Your task to perform on an android device: change timer sound Image 0: 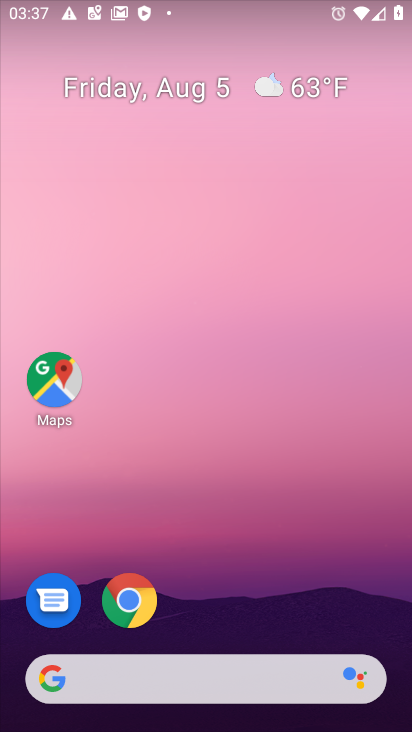
Step 0: drag from (207, 670) to (243, 75)
Your task to perform on an android device: change timer sound Image 1: 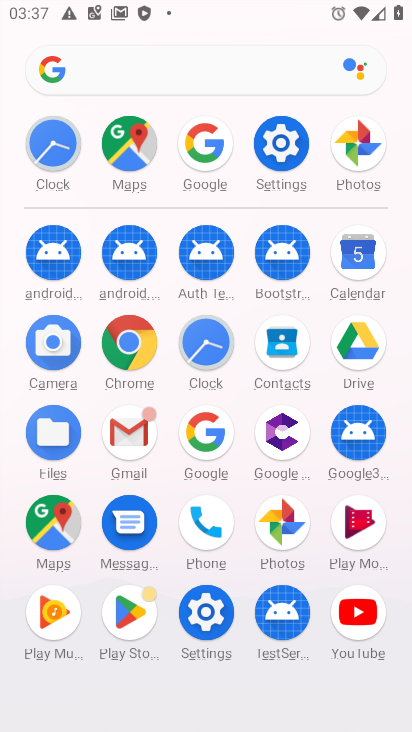
Step 1: click (53, 145)
Your task to perform on an android device: change timer sound Image 2: 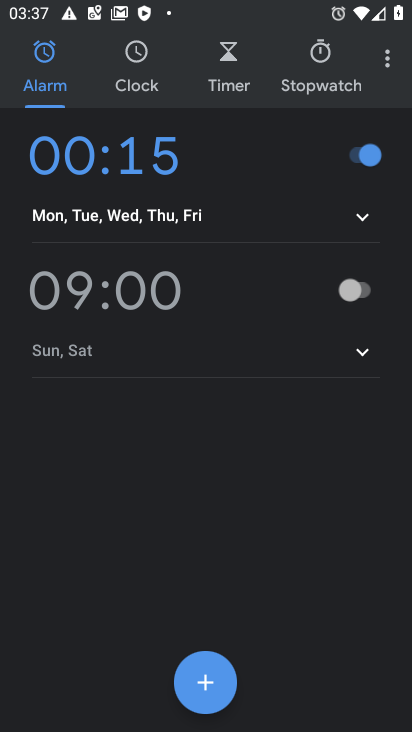
Step 2: click (387, 57)
Your task to perform on an android device: change timer sound Image 3: 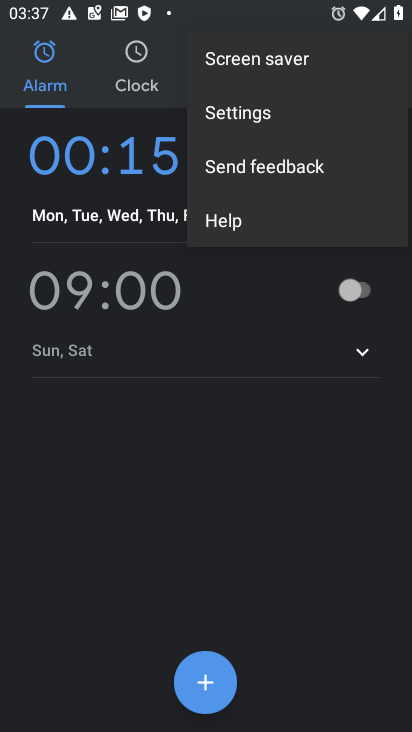
Step 3: click (266, 113)
Your task to perform on an android device: change timer sound Image 4: 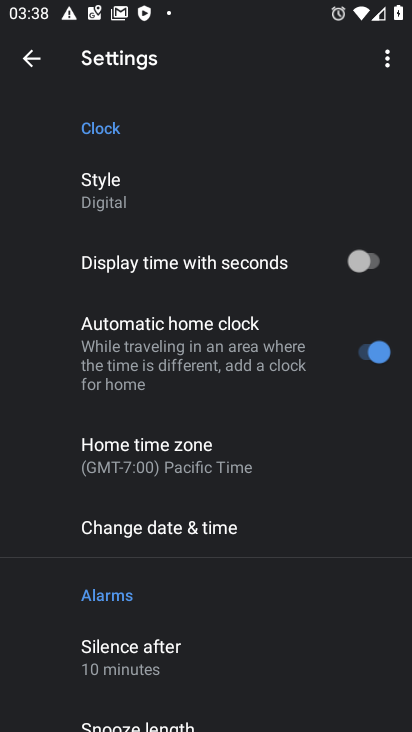
Step 4: drag from (184, 572) to (264, 430)
Your task to perform on an android device: change timer sound Image 5: 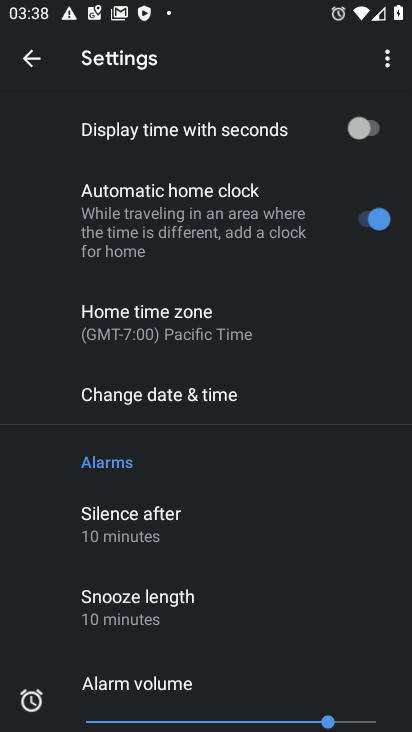
Step 5: drag from (187, 629) to (254, 492)
Your task to perform on an android device: change timer sound Image 6: 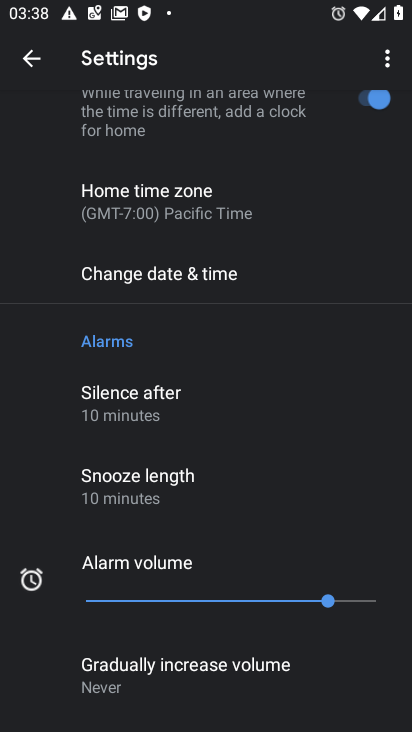
Step 6: drag from (159, 621) to (244, 453)
Your task to perform on an android device: change timer sound Image 7: 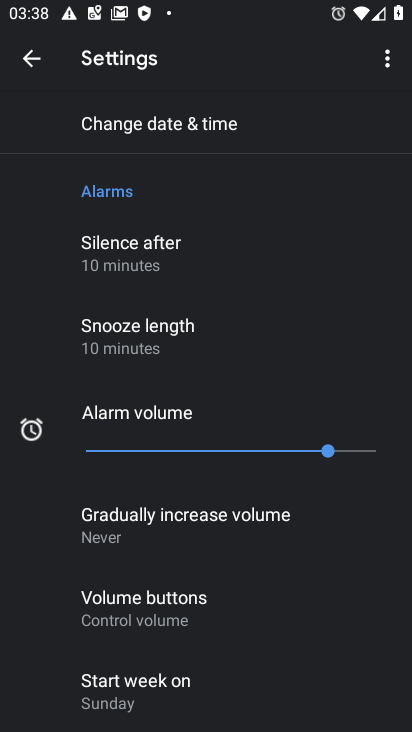
Step 7: drag from (137, 640) to (196, 508)
Your task to perform on an android device: change timer sound Image 8: 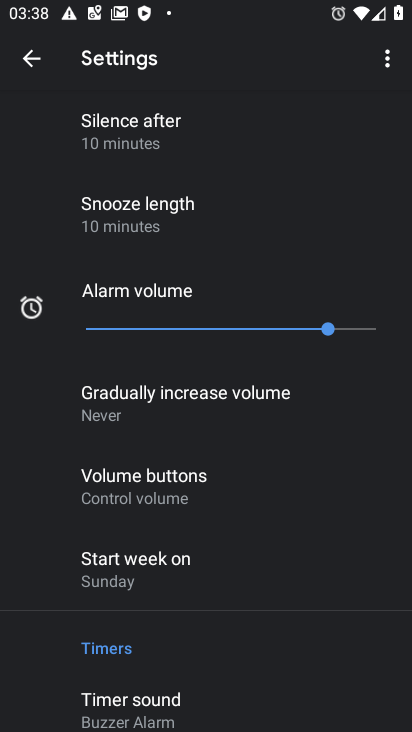
Step 8: drag from (137, 625) to (234, 423)
Your task to perform on an android device: change timer sound Image 9: 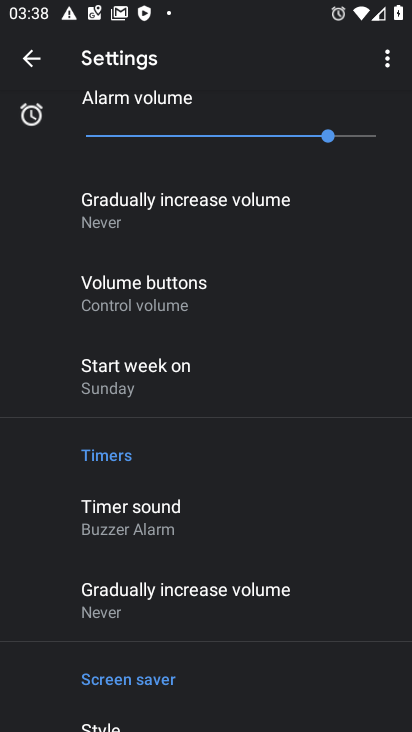
Step 9: click (149, 518)
Your task to perform on an android device: change timer sound Image 10: 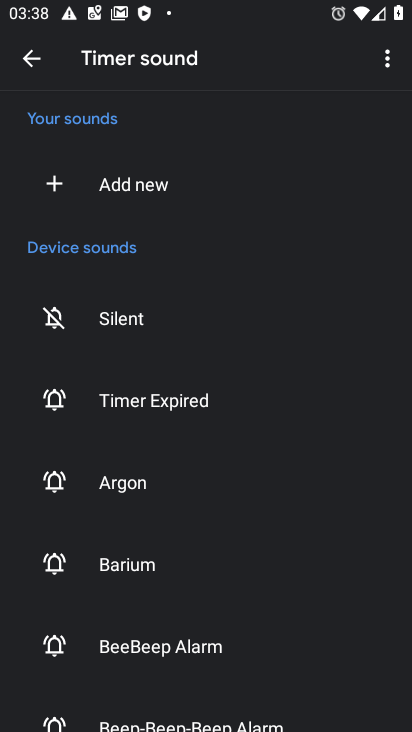
Step 10: drag from (151, 589) to (194, 478)
Your task to perform on an android device: change timer sound Image 11: 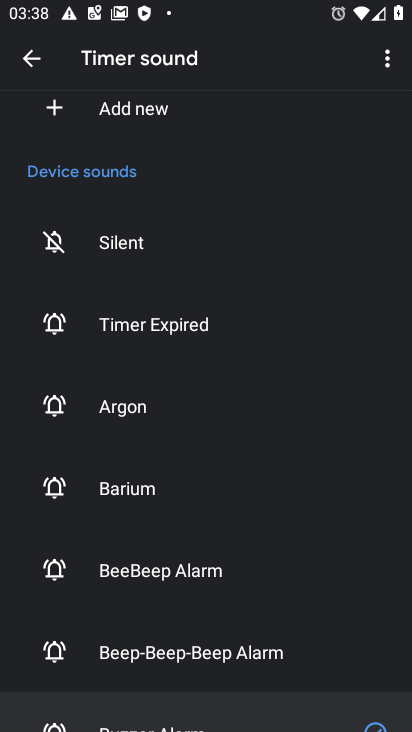
Step 11: click (161, 573)
Your task to perform on an android device: change timer sound Image 12: 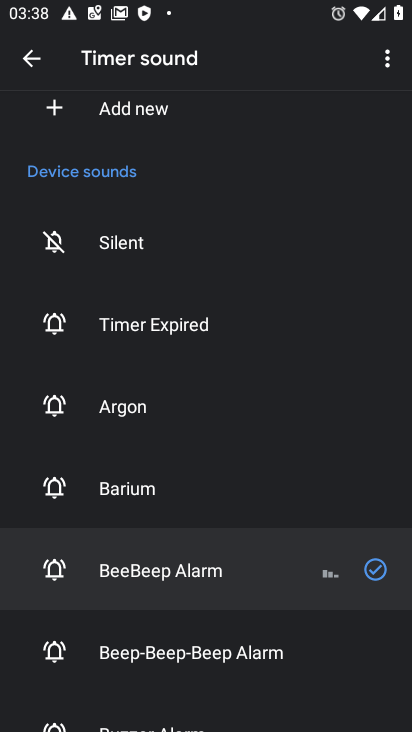
Step 12: task complete